Your task to perform on an android device: Go to Android settings Image 0: 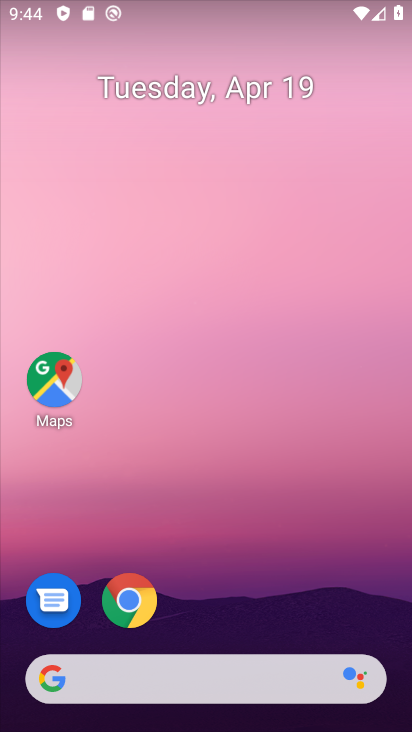
Step 0: drag from (216, 609) to (314, 65)
Your task to perform on an android device: Go to Android settings Image 1: 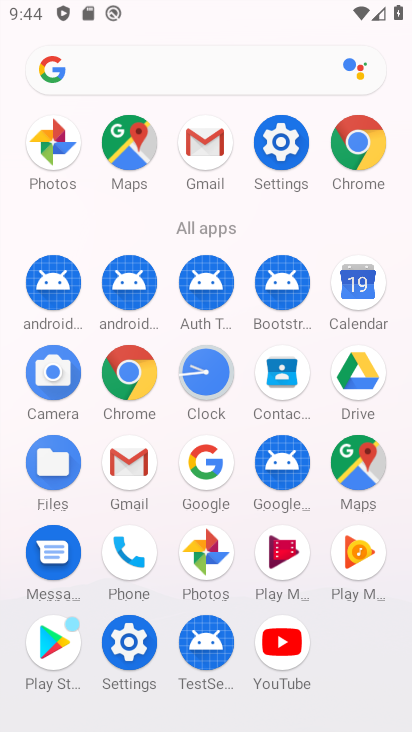
Step 1: click (144, 653)
Your task to perform on an android device: Go to Android settings Image 2: 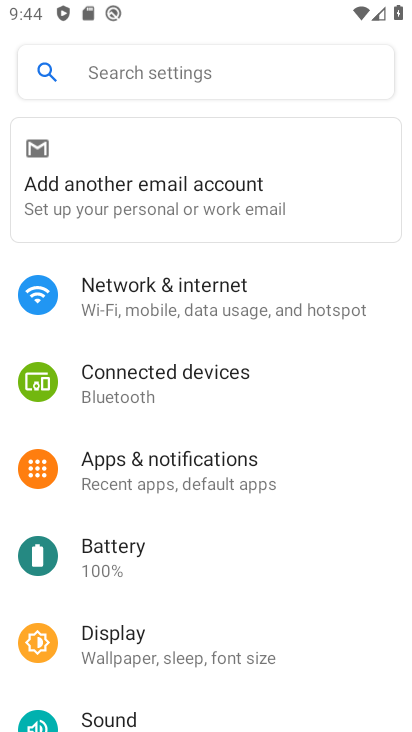
Step 2: task complete